Your task to perform on an android device: Open Google Chrome Image 0: 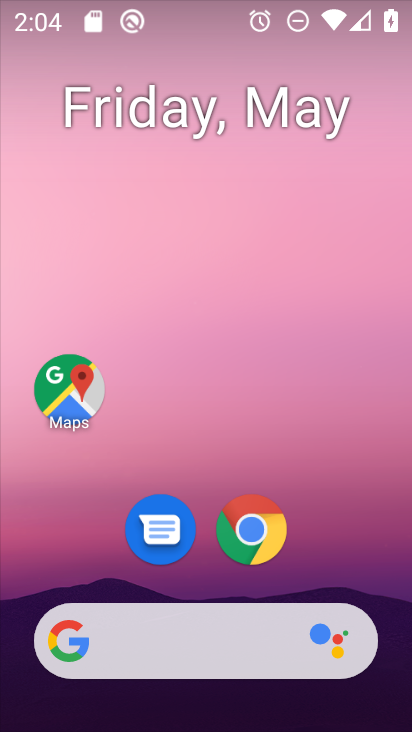
Step 0: click (243, 510)
Your task to perform on an android device: Open Google Chrome Image 1: 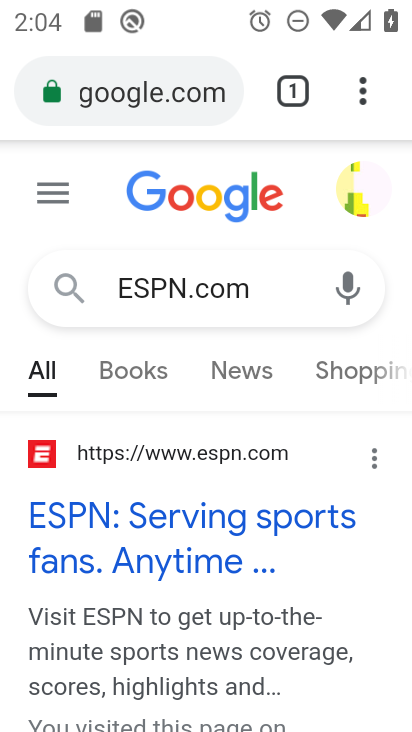
Step 1: task complete